Your task to perform on an android device: turn off data saver in the chrome app Image 0: 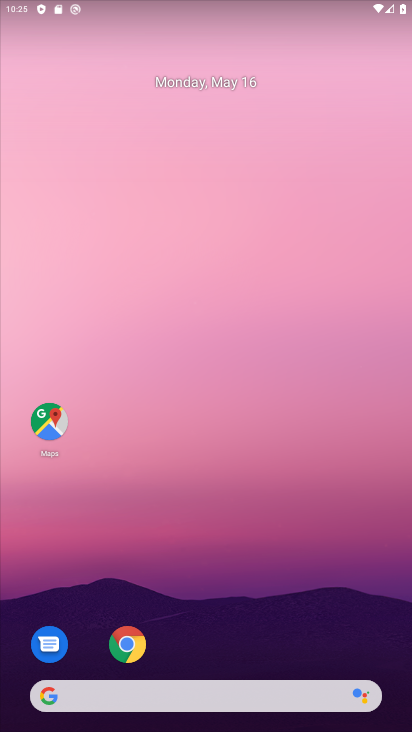
Step 0: click (127, 642)
Your task to perform on an android device: turn off data saver in the chrome app Image 1: 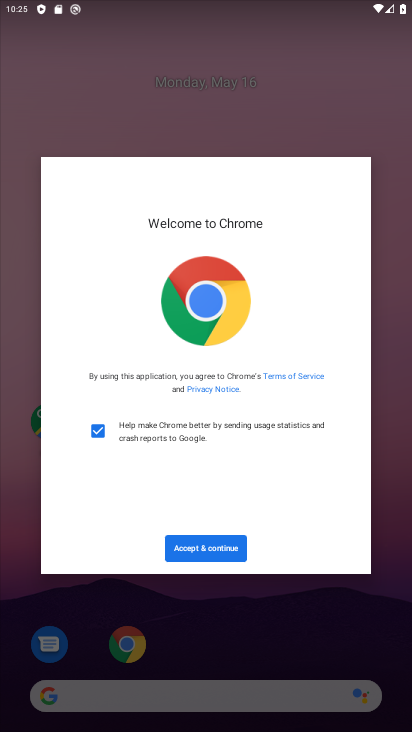
Step 1: click (195, 547)
Your task to perform on an android device: turn off data saver in the chrome app Image 2: 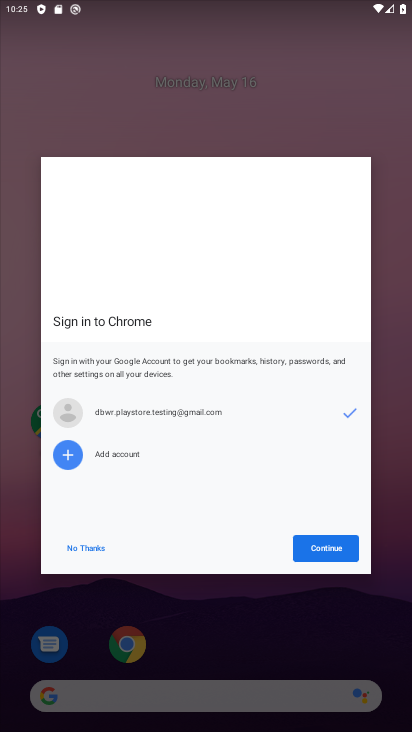
Step 2: click (339, 547)
Your task to perform on an android device: turn off data saver in the chrome app Image 3: 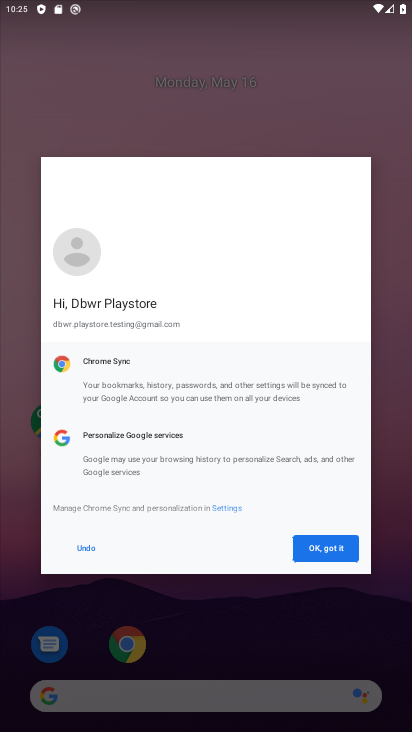
Step 3: click (339, 547)
Your task to perform on an android device: turn off data saver in the chrome app Image 4: 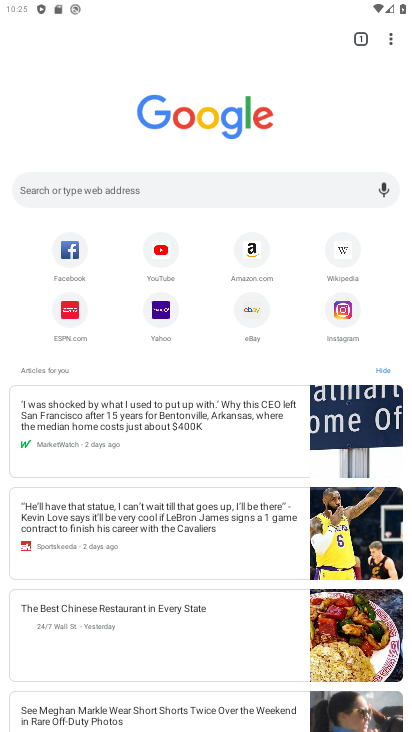
Step 4: click (391, 42)
Your task to perform on an android device: turn off data saver in the chrome app Image 5: 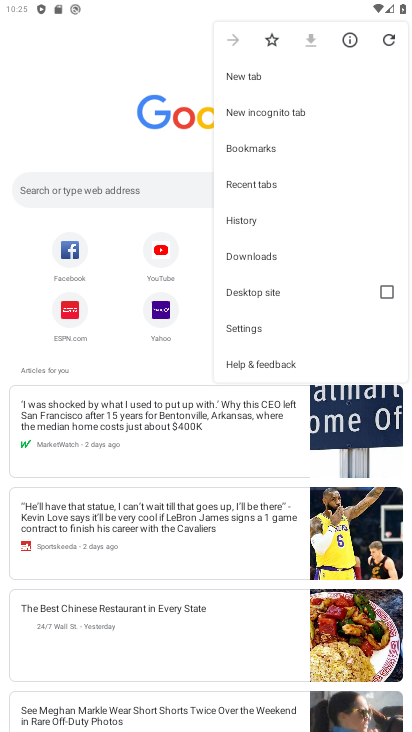
Step 5: click (240, 325)
Your task to perform on an android device: turn off data saver in the chrome app Image 6: 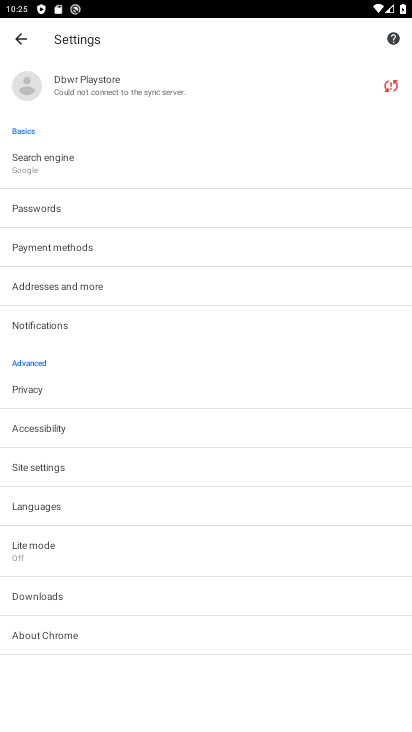
Step 6: click (39, 548)
Your task to perform on an android device: turn off data saver in the chrome app Image 7: 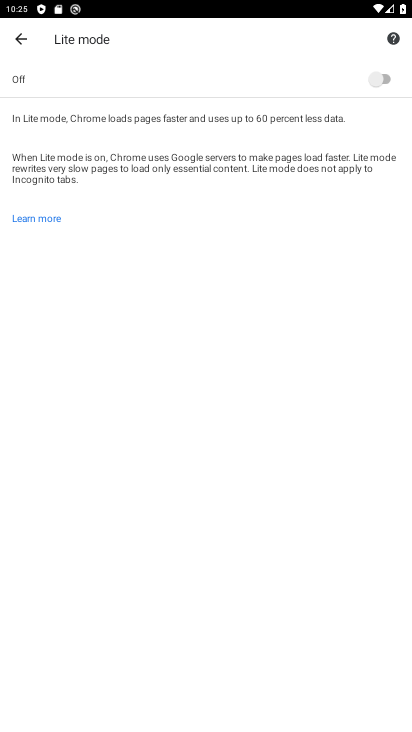
Step 7: task complete